Your task to perform on an android device: Open ESPN.com Image 0: 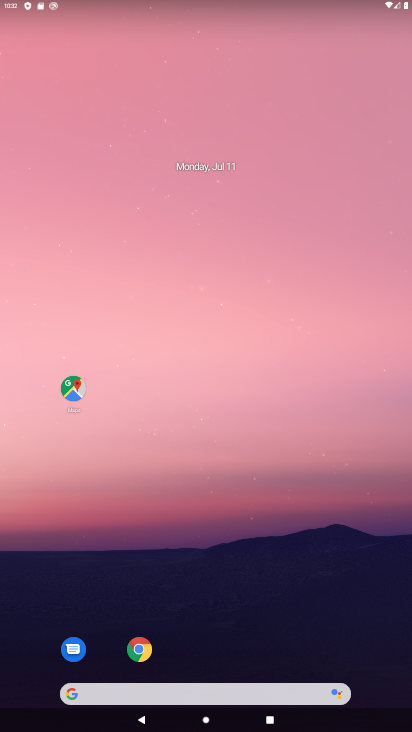
Step 0: drag from (234, 492) to (226, 83)
Your task to perform on an android device: Open ESPN.com Image 1: 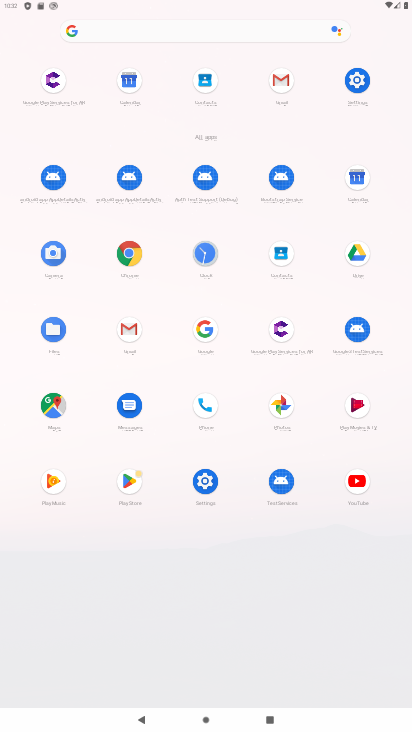
Step 1: click (130, 254)
Your task to perform on an android device: Open ESPN.com Image 2: 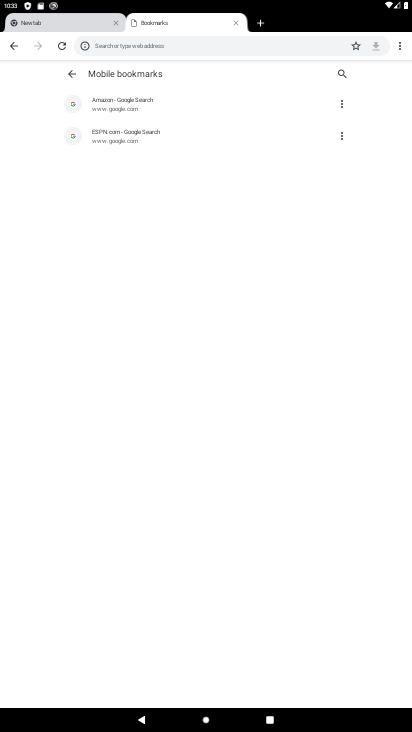
Step 2: click (196, 45)
Your task to perform on an android device: Open ESPN.com Image 3: 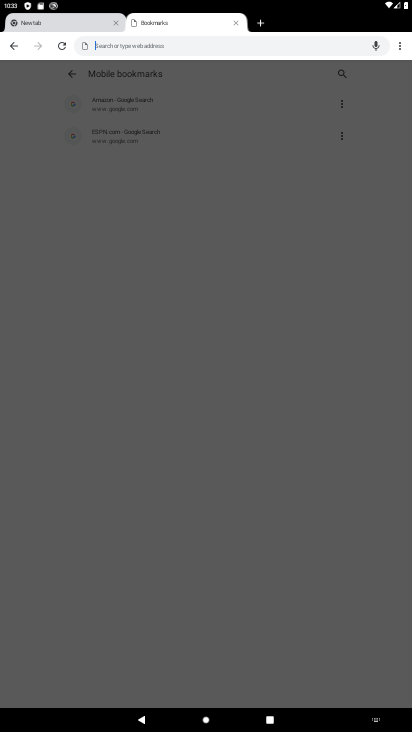
Step 3: type "espn.com"
Your task to perform on an android device: Open ESPN.com Image 4: 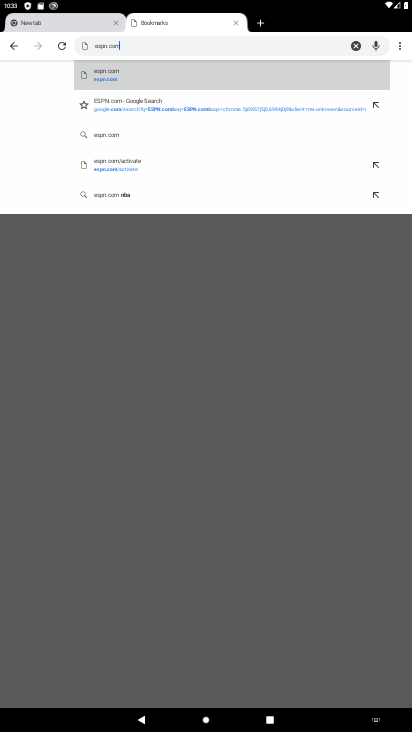
Step 4: click (150, 76)
Your task to perform on an android device: Open ESPN.com Image 5: 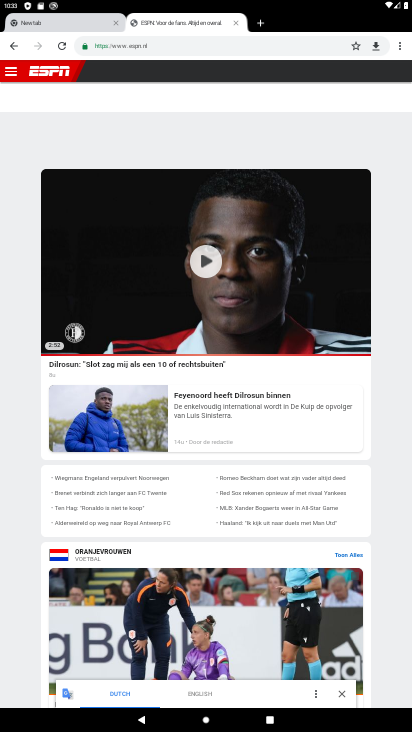
Step 5: task complete